Your task to perform on an android device: Go to wifi settings Image 0: 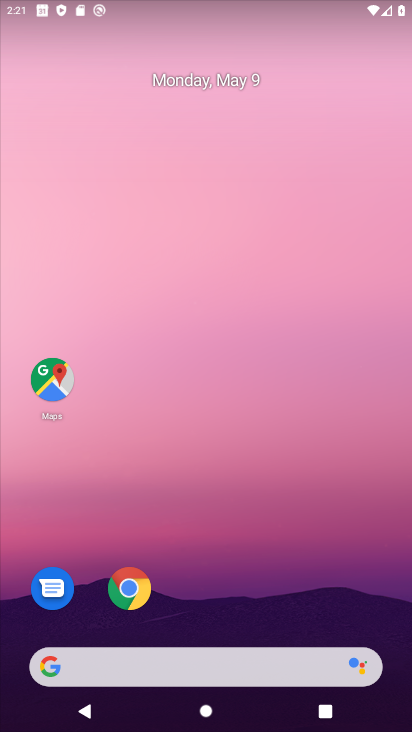
Step 0: drag from (330, 606) to (285, 5)
Your task to perform on an android device: Go to wifi settings Image 1: 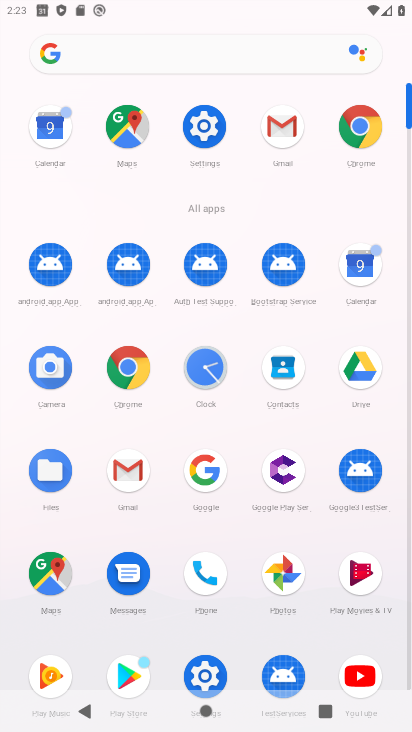
Step 1: click (203, 673)
Your task to perform on an android device: Go to wifi settings Image 2: 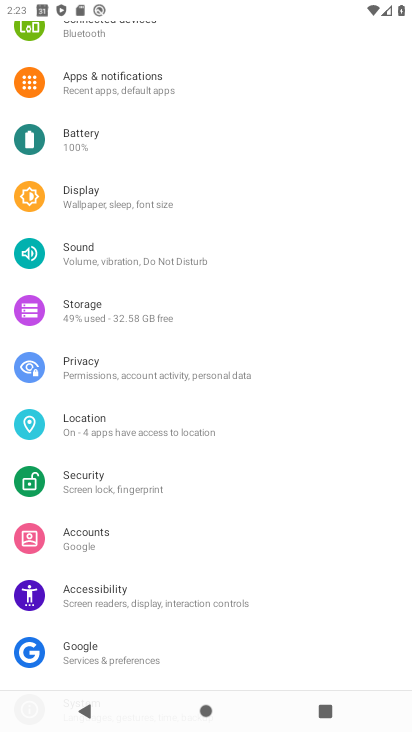
Step 2: drag from (94, 114) to (107, 182)
Your task to perform on an android device: Go to wifi settings Image 3: 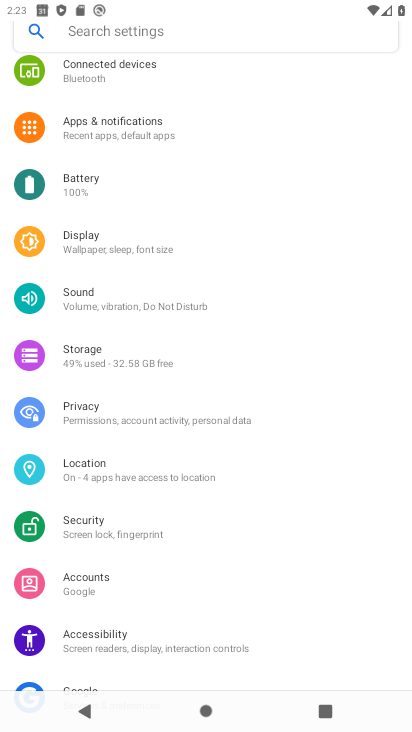
Step 3: drag from (129, 86) to (136, 341)
Your task to perform on an android device: Go to wifi settings Image 4: 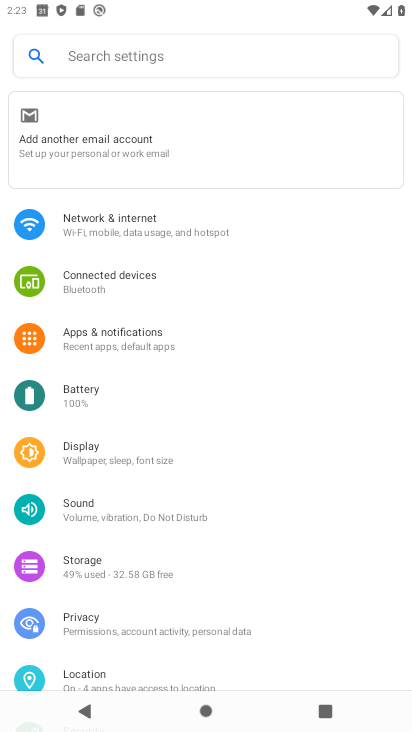
Step 4: click (118, 230)
Your task to perform on an android device: Go to wifi settings Image 5: 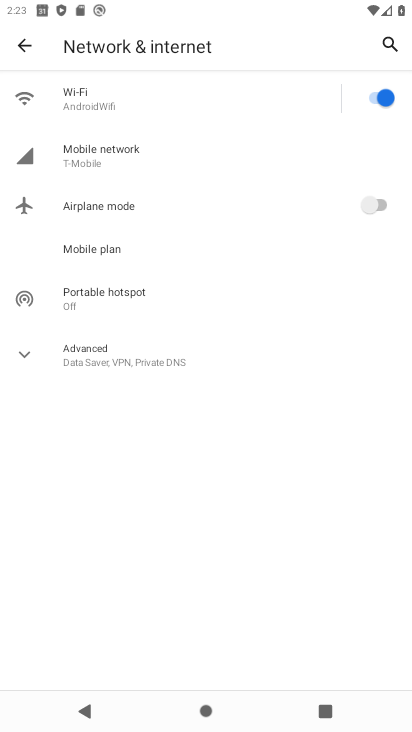
Step 5: click (204, 100)
Your task to perform on an android device: Go to wifi settings Image 6: 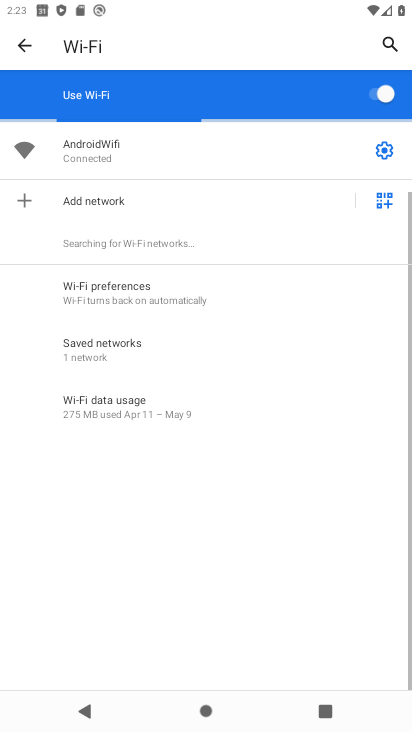
Step 6: task complete